Your task to perform on an android device: Check the weather Image 0: 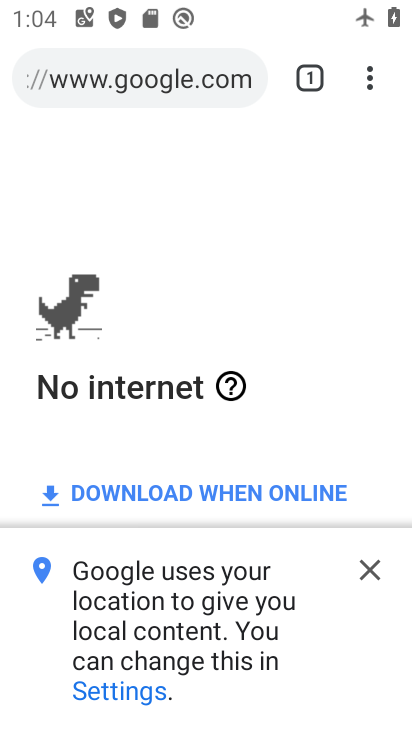
Step 0: press home button
Your task to perform on an android device: Check the weather Image 1: 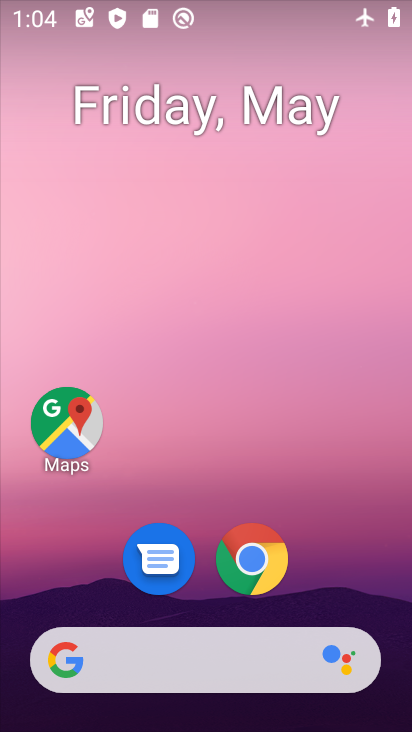
Step 1: drag from (331, 548) to (184, 86)
Your task to perform on an android device: Check the weather Image 2: 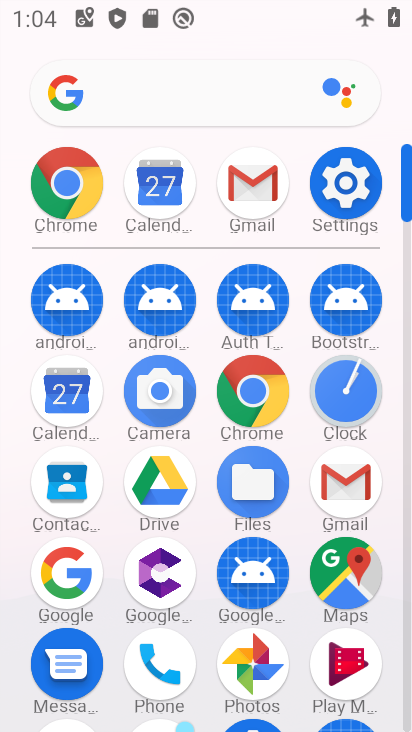
Step 2: click (68, 193)
Your task to perform on an android device: Check the weather Image 3: 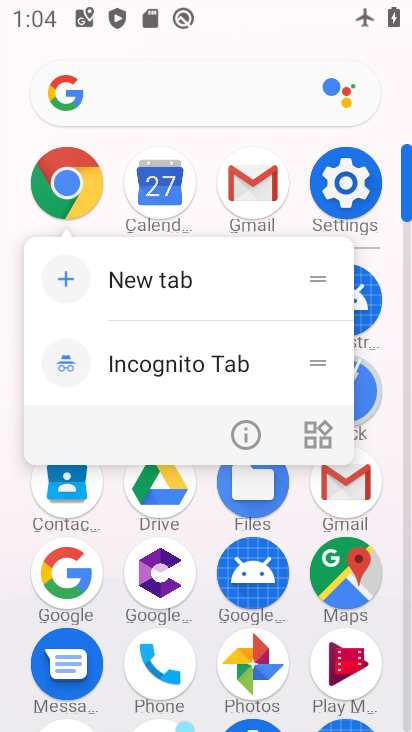
Step 3: click (66, 192)
Your task to perform on an android device: Check the weather Image 4: 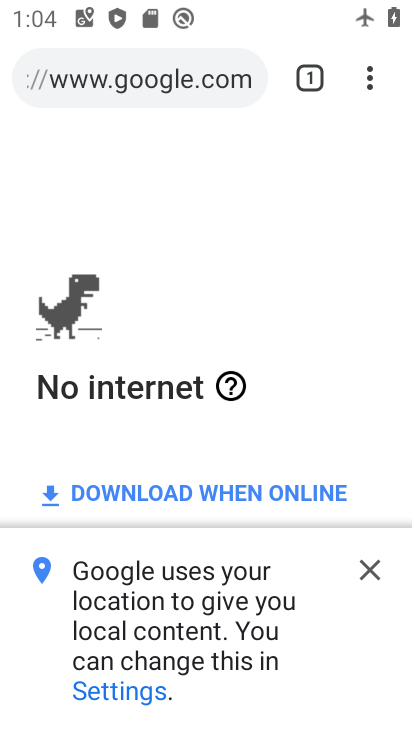
Step 4: click (97, 93)
Your task to perform on an android device: Check the weather Image 5: 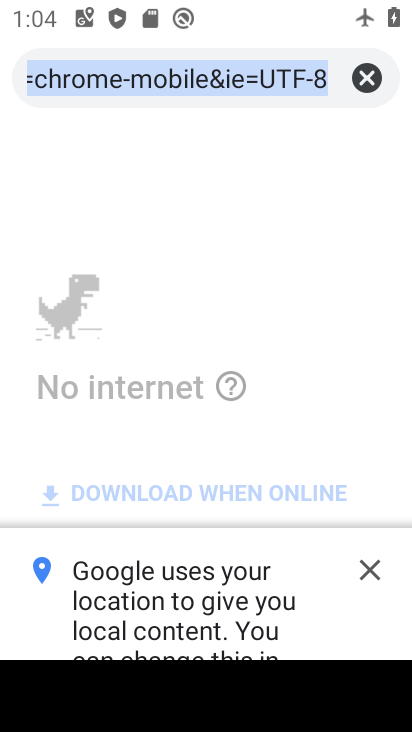
Step 5: type "weather"
Your task to perform on an android device: Check the weather Image 6: 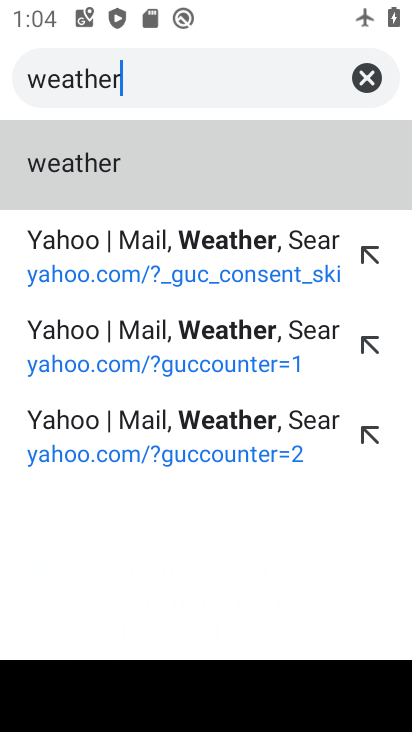
Step 6: click (59, 165)
Your task to perform on an android device: Check the weather Image 7: 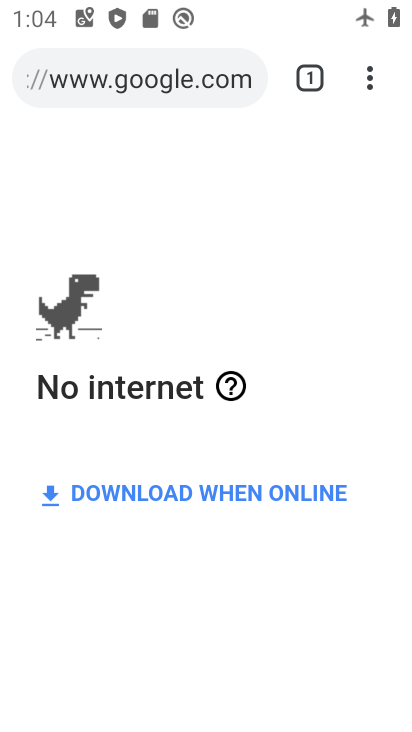
Step 7: task complete